Your task to perform on an android device: Open notification settings Image 0: 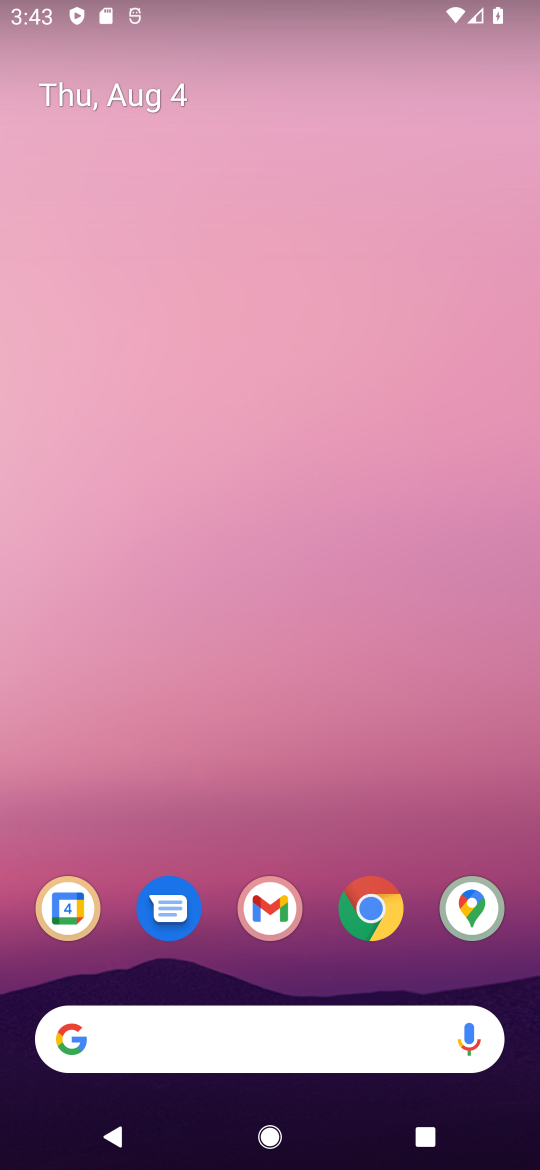
Step 0: drag from (293, 986) to (315, 37)
Your task to perform on an android device: Open notification settings Image 1: 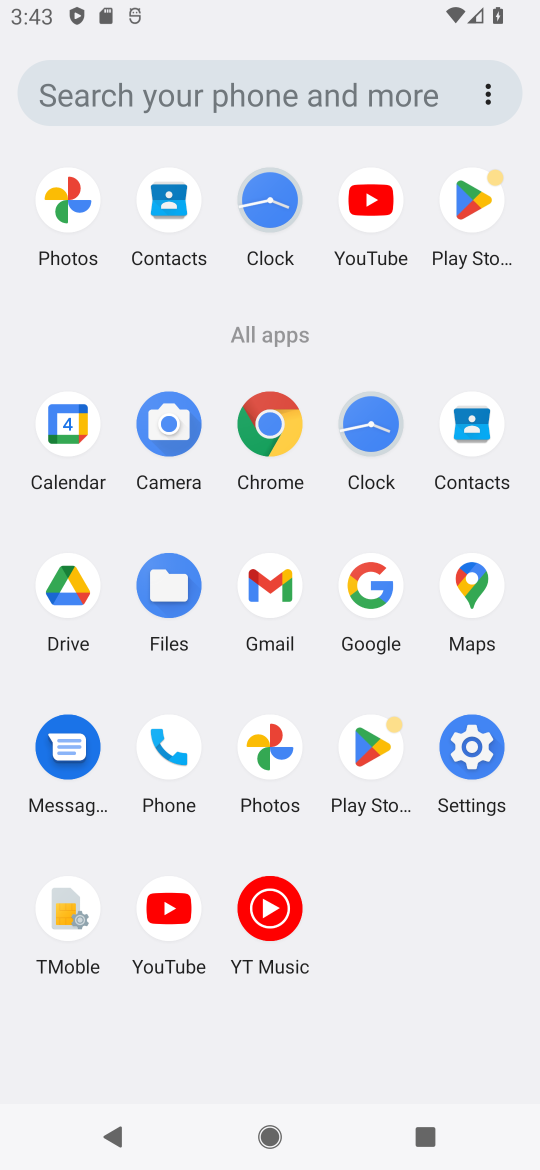
Step 1: click (456, 733)
Your task to perform on an android device: Open notification settings Image 2: 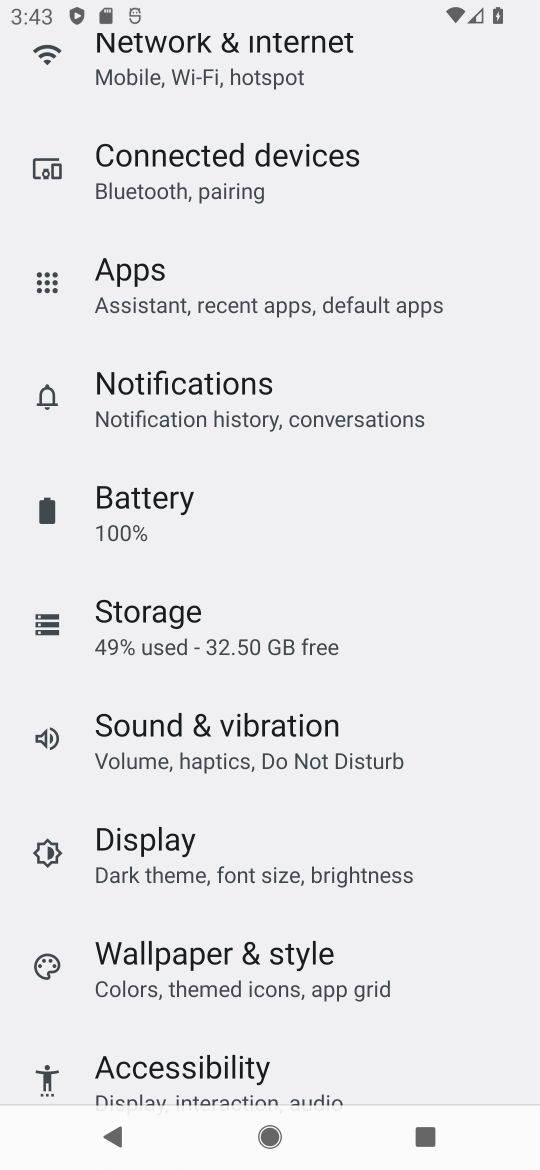
Step 2: click (273, 422)
Your task to perform on an android device: Open notification settings Image 3: 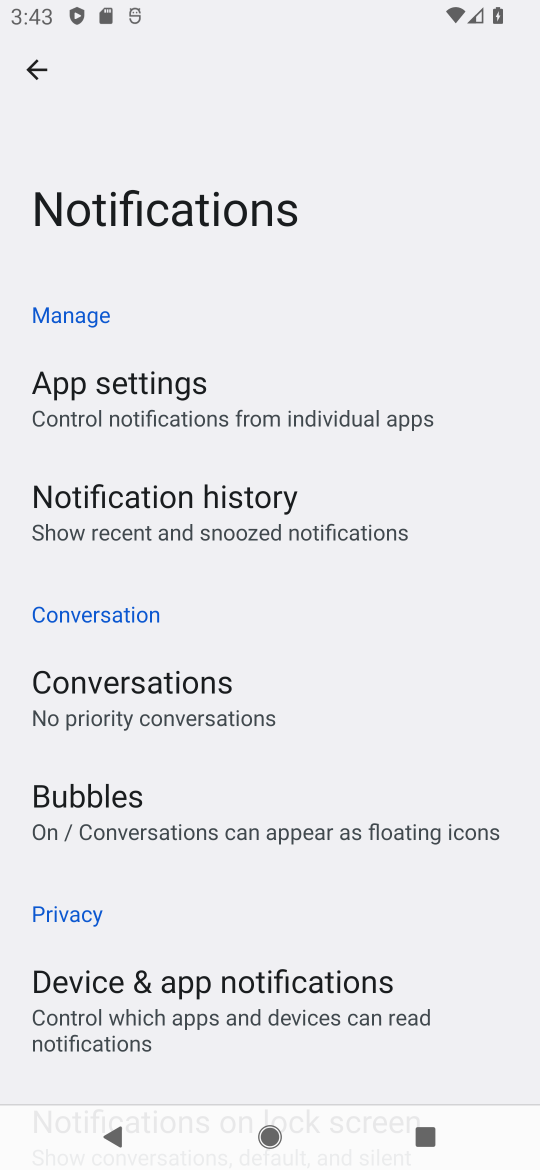
Step 3: task complete